Your task to perform on an android device: find which apps use the phone's location Image 0: 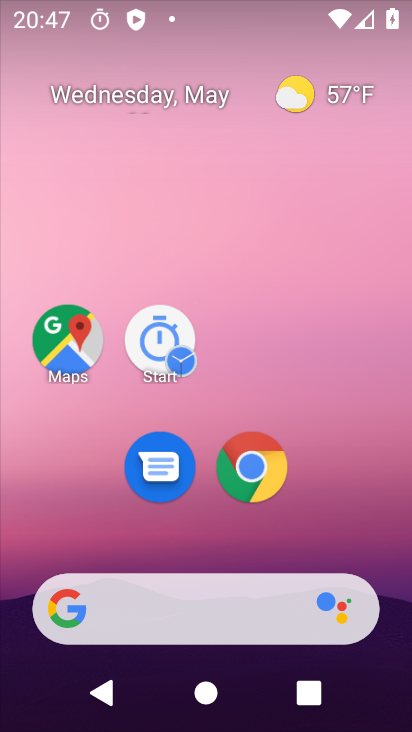
Step 0: drag from (344, 489) to (155, 1)
Your task to perform on an android device: find which apps use the phone's location Image 1: 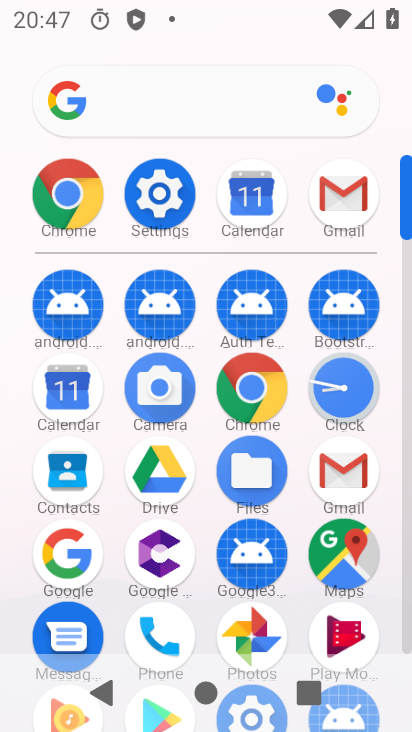
Step 1: click (158, 201)
Your task to perform on an android device: find which apps use the phone's location Image 2: 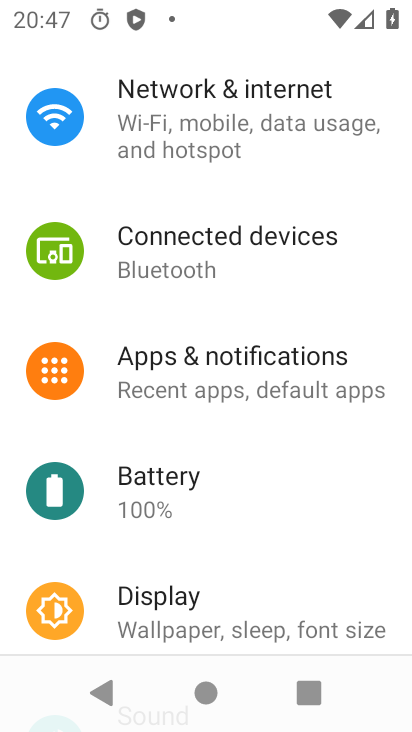
Step 2: drag from (218, 591) to (151, 153)
Your task to perform on an android device: find which apps use the phone's location Image 3: 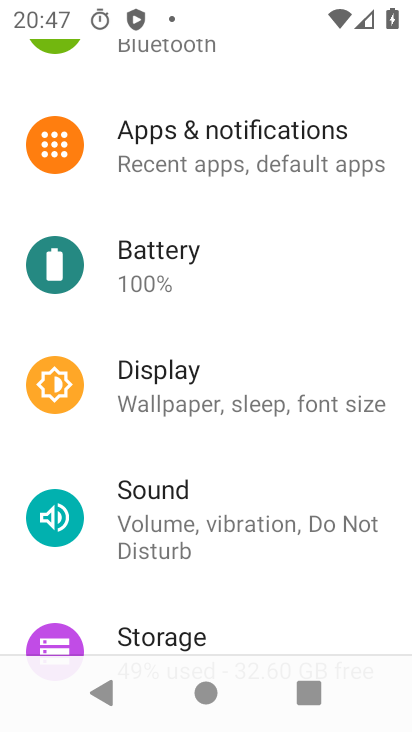
Step 3: drag from (278, 508) to (192, 108)
Your task to perform on an android device: find which apps use the phone's location Image 4: 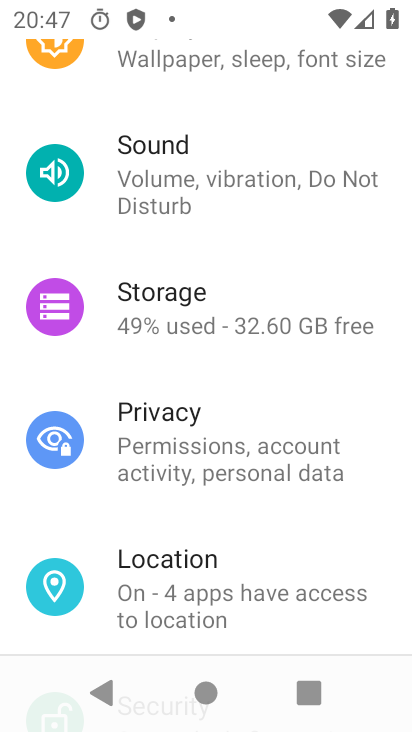
Step 4: click (172, 573)
Your task to perform on an android device: find which apps use the phone's location Image 5: 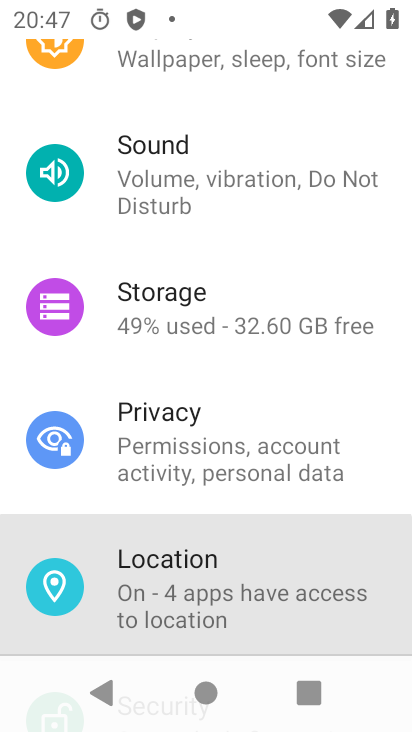
Step 5: click (172, 573)
Your task to perform on an android device: find which apps use the phone's location Image 6: 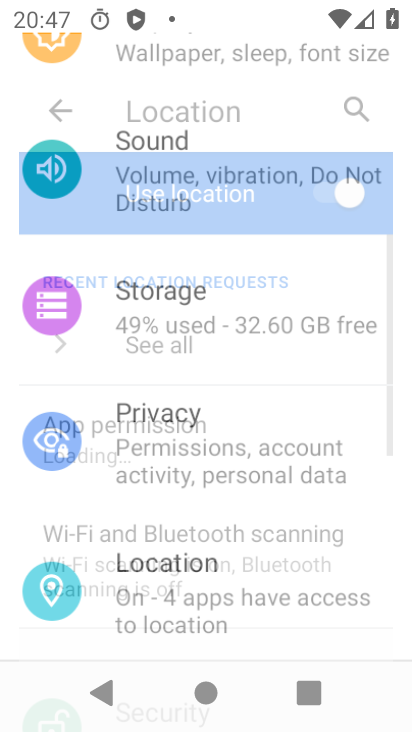
Step 6: click (173, 572)
Your task to perform on an android device: find which apps use the phone's location Image 7: 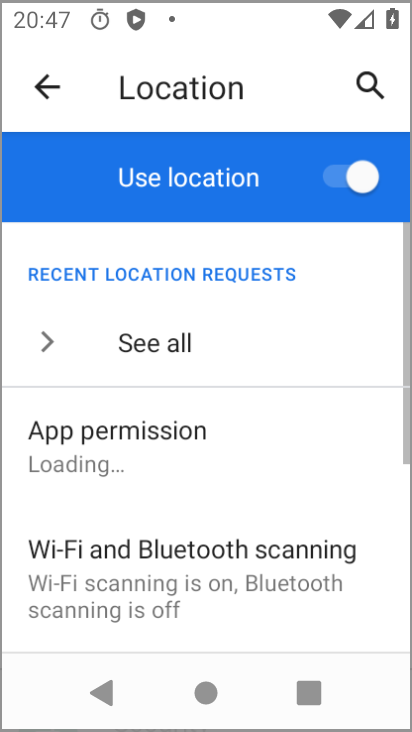
Step 7: click (173, 572)
Your task to perform on an android device: find which apps use the phone's location Image 8: 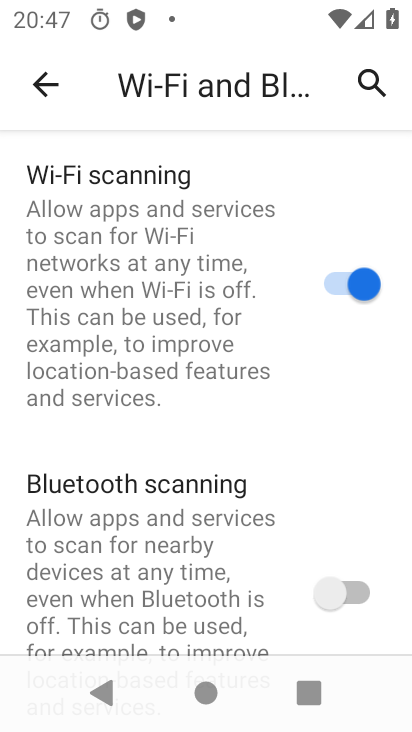
Step 8: drag from (234, 520) to (212, 159)
Your task to perform on an android device: find which apps use the phone's location Image 9: 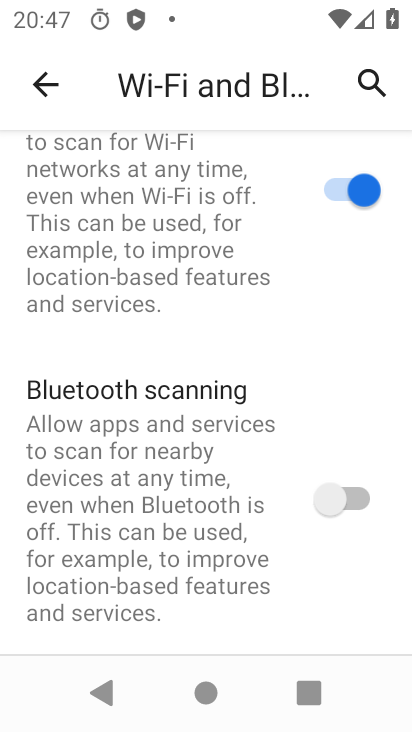
Step 9: click (42, 87)
Your task to perform on an android device: find which apps use the phone's location Image 10: 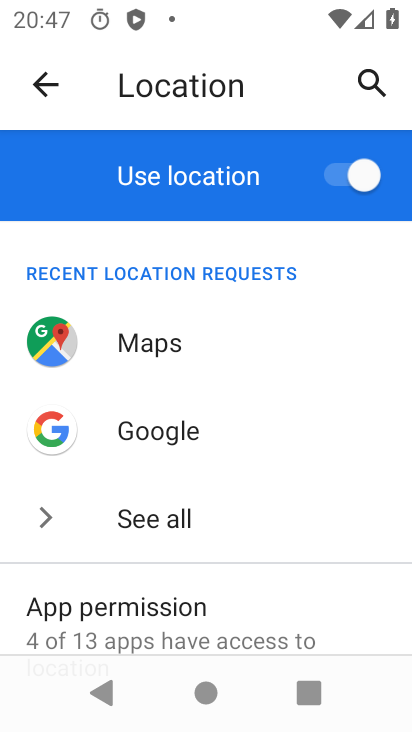
Step 10: drag from (219, 457) to (183, 40)
Your task to perform on an android device: find which apps use the phone's location Image 11: 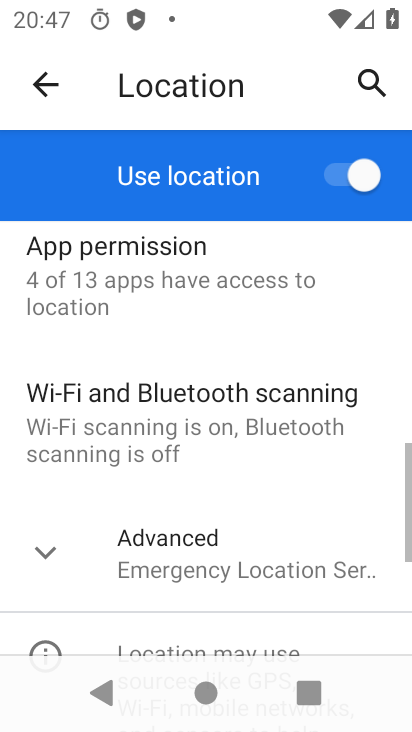
Step 11: drag from (288, 480) to (194, 122)
Your task to perform on an android device: find which apps use the phone's location Image 12: 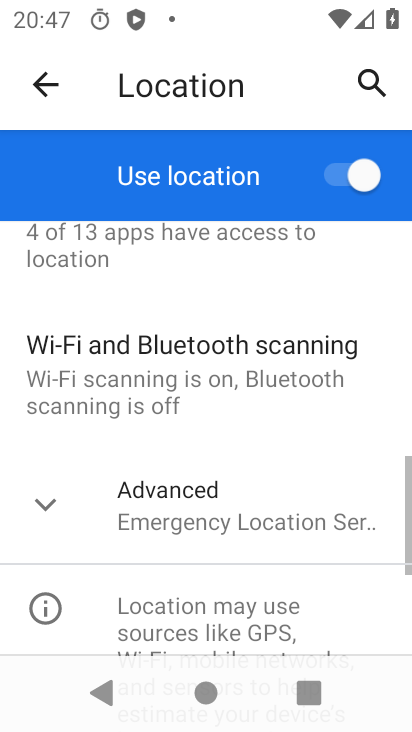
Step 12: drag from (294, 431) to (321, 0)
Your task to perform on an android device: find which apps use the phone's location Image 13: 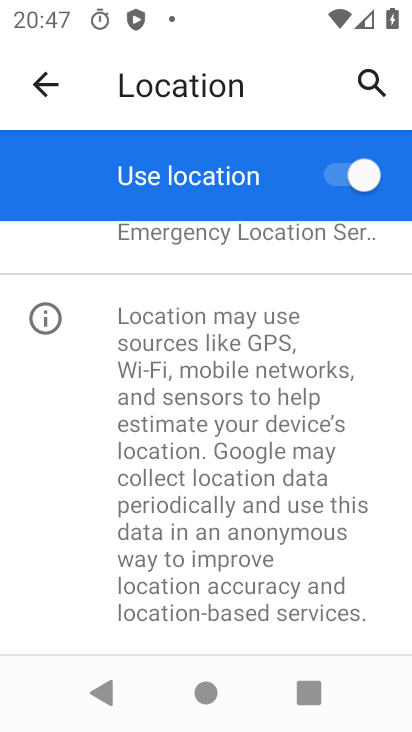
Step 13: drag from (184, 372) to (286, 722)
Your task to perform on an android device: find which apps use the phone's location Image 14: 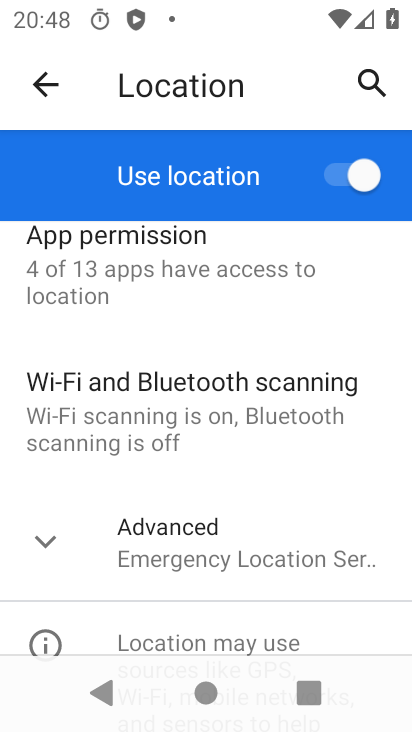
Step 14: click (98, 253)
Your task to perform on an android device: find which apps use the phone's location Image 15: 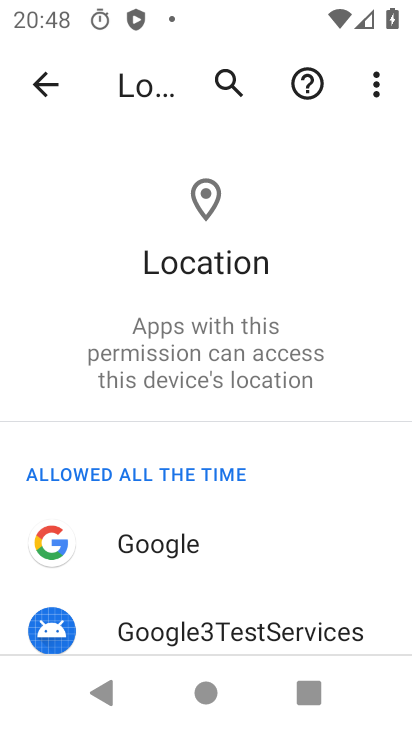
Step 15: task complete